Your task to perform on an android device: When is my next meeting? Image 0: 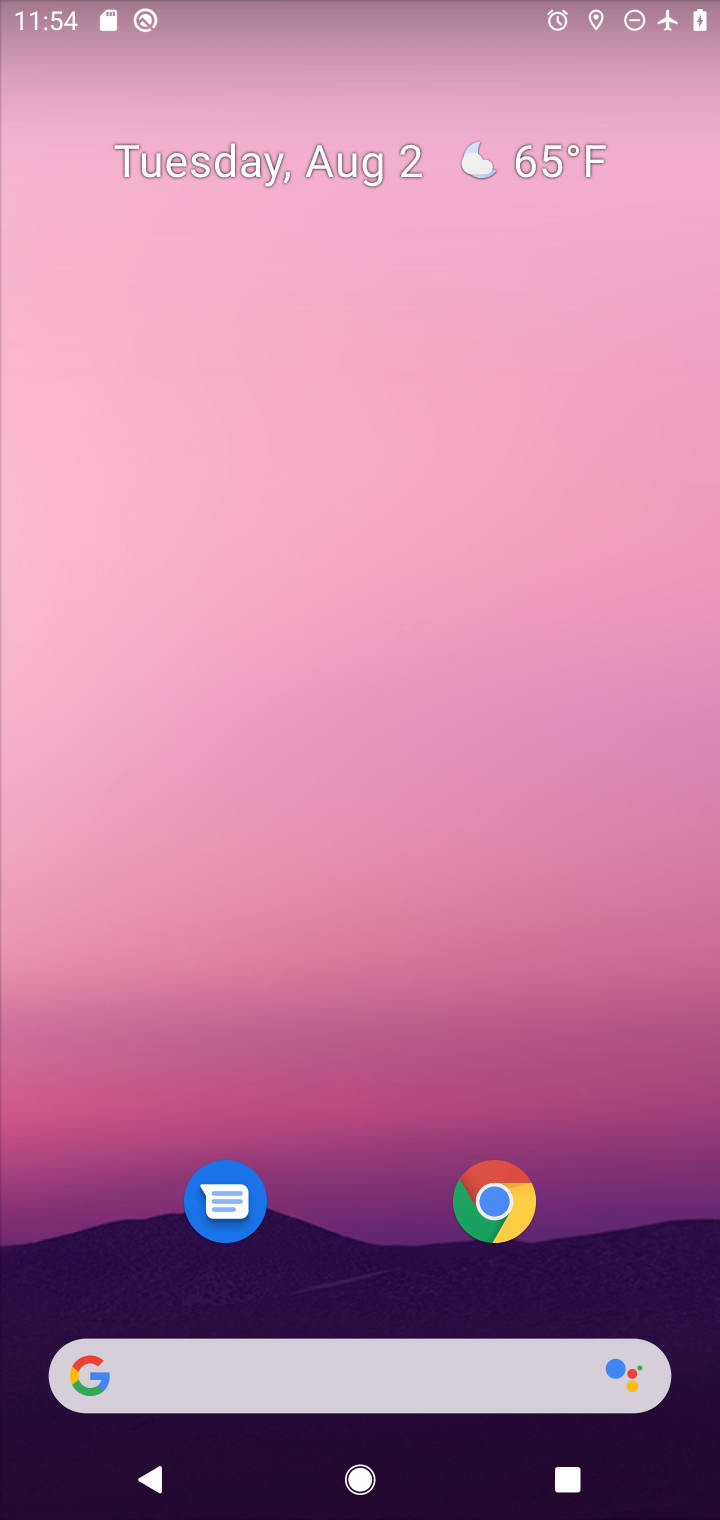
Step 0: press back button
Your task to perform on an android device: When is my next meeting? Image 1: 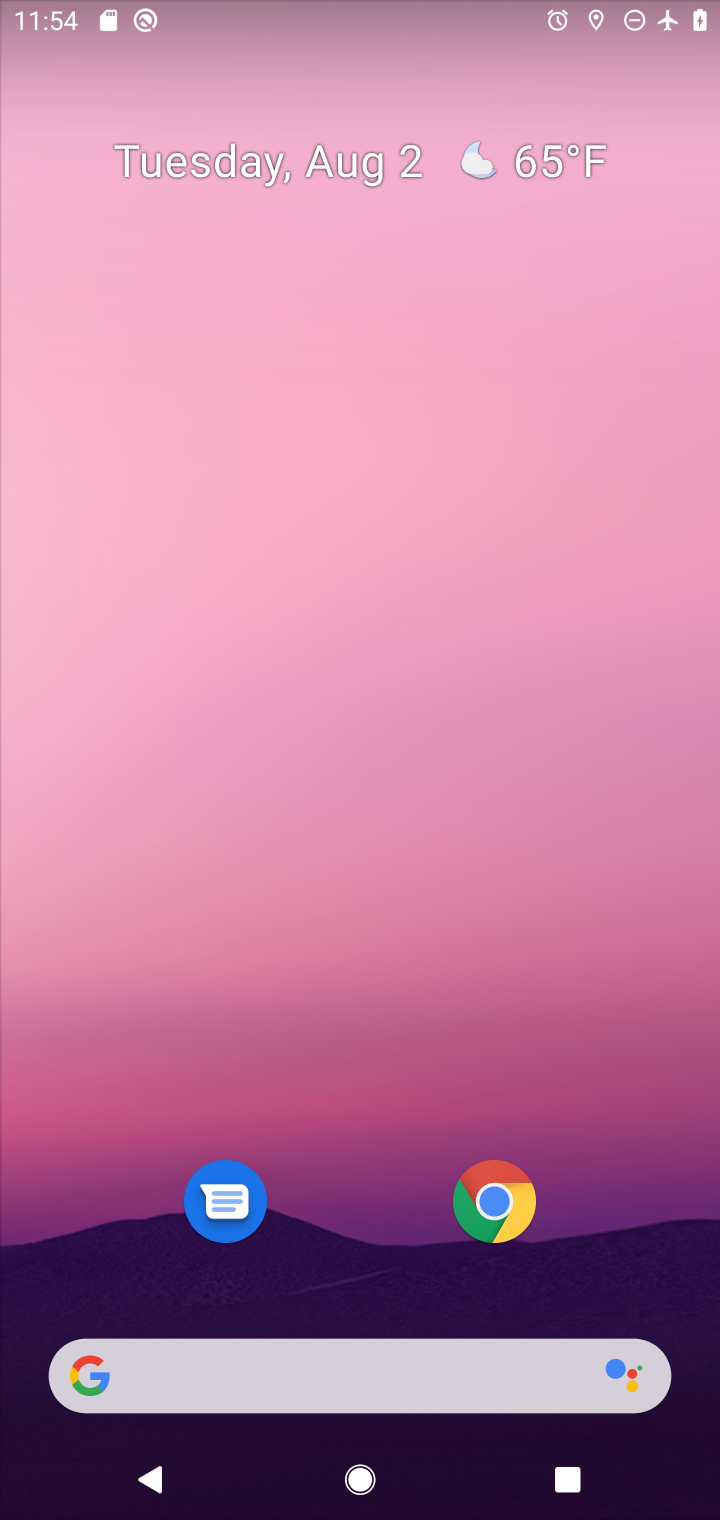
Step 1: drag from (420, 1094) to (346, 83)
Your task to perform on an android device: When is my next meeting? Image 2: 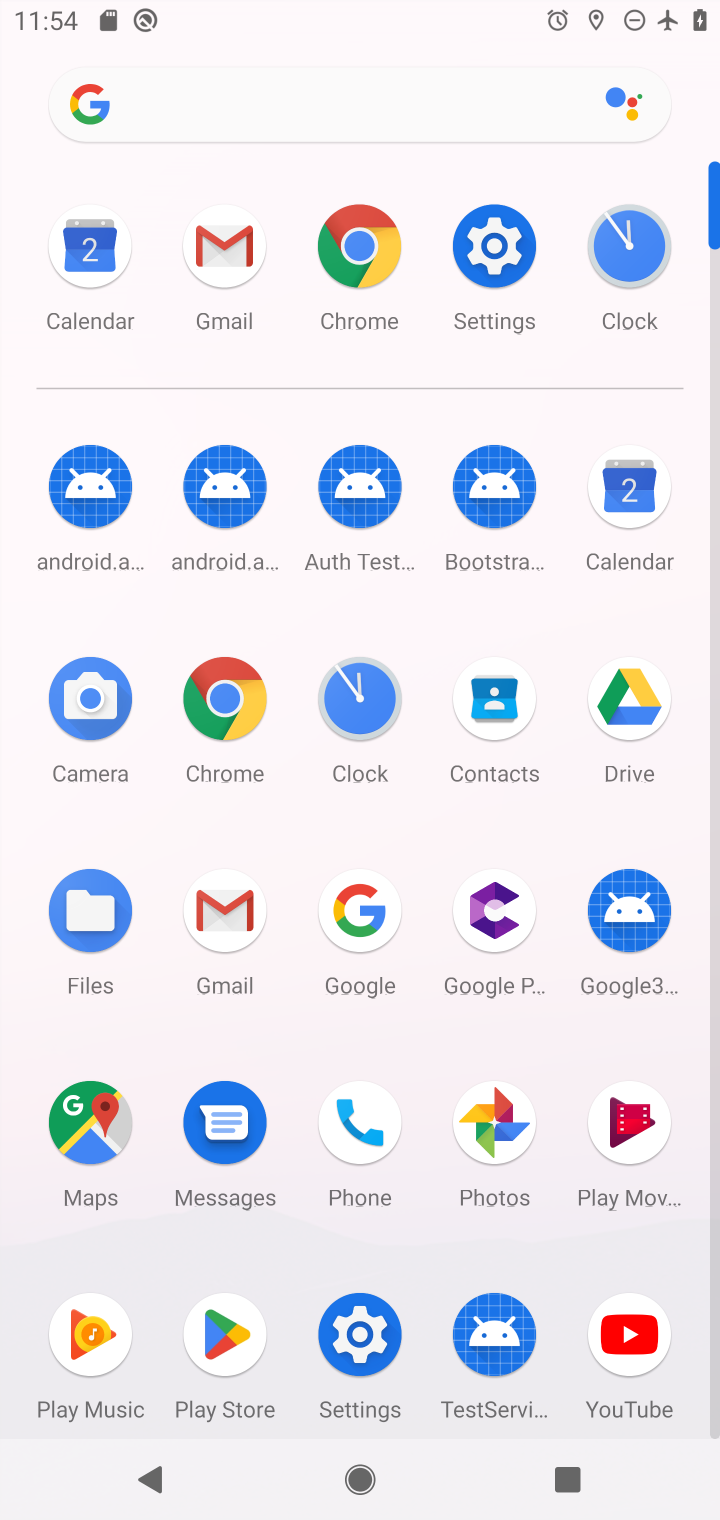
Step 2: click (620, 462)
Your task to perform on an android device: When is my next meeting? Image 3: 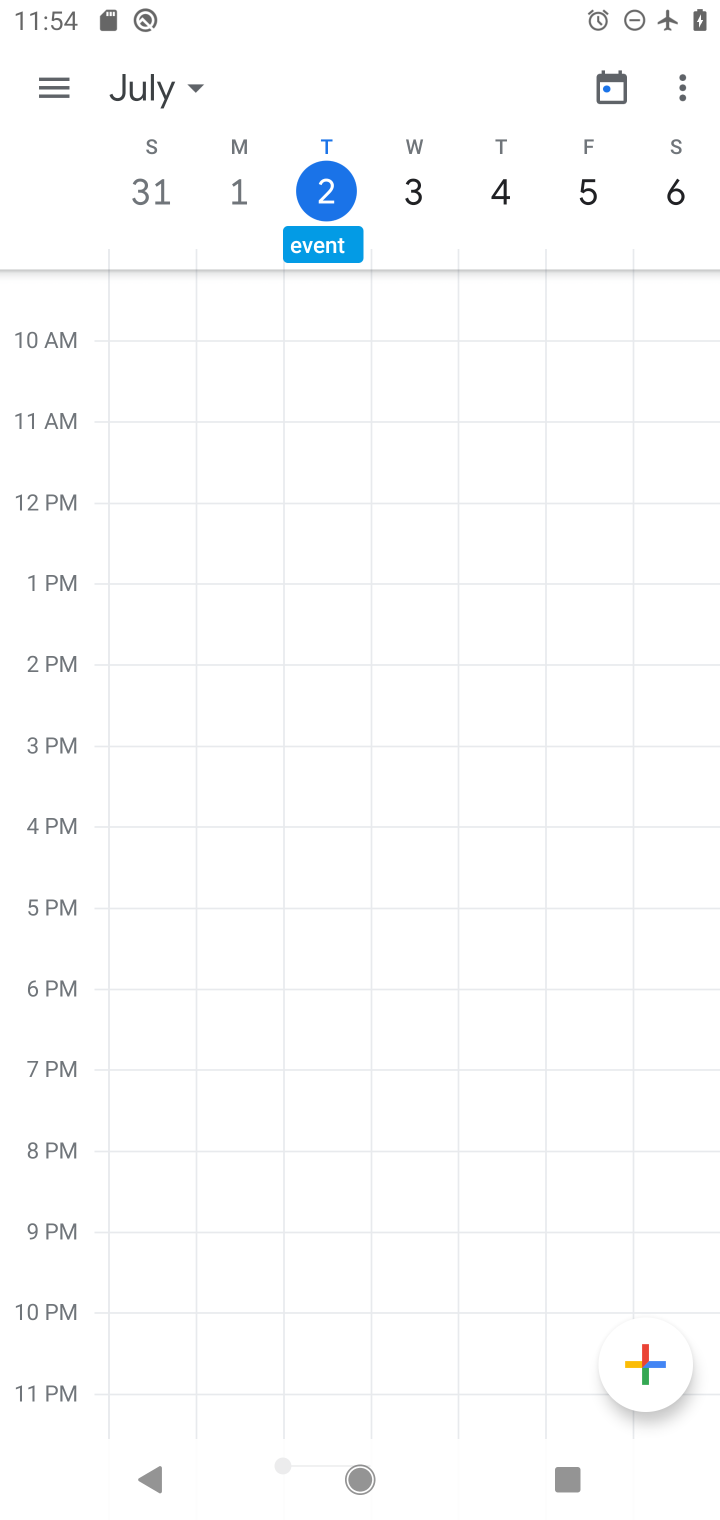
Step 3: task complete